Your task to perform on an android device: Go to sound settings Image 0: 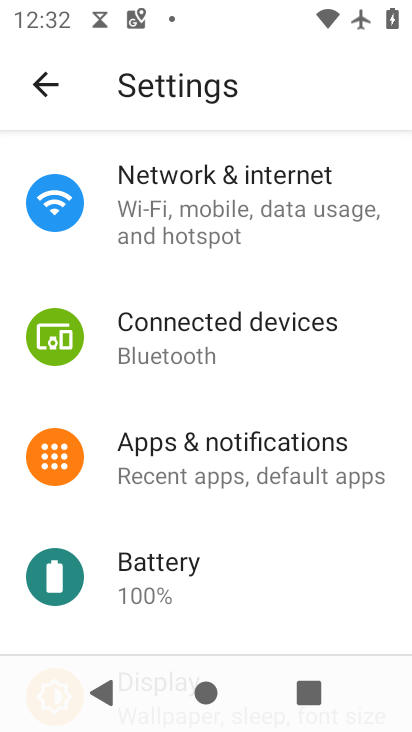
Step 0: drag from (281, 439) to (222, 54)
Your task to perform on an android device: Go to sound settings Image 1: 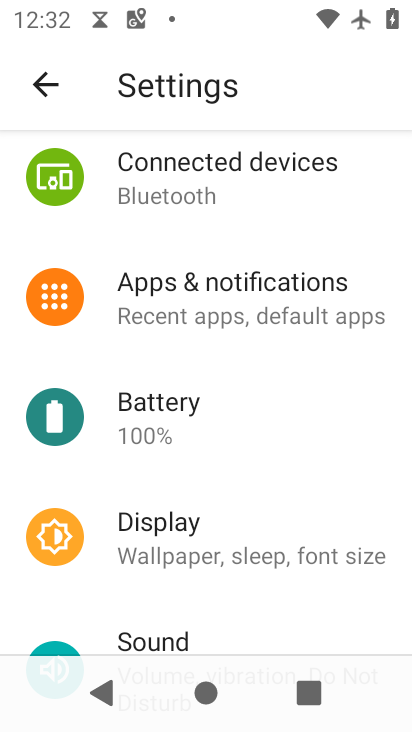
Step 1: click (214, 627)
Your task to perform on an android device: Go to sound settings Image 2: 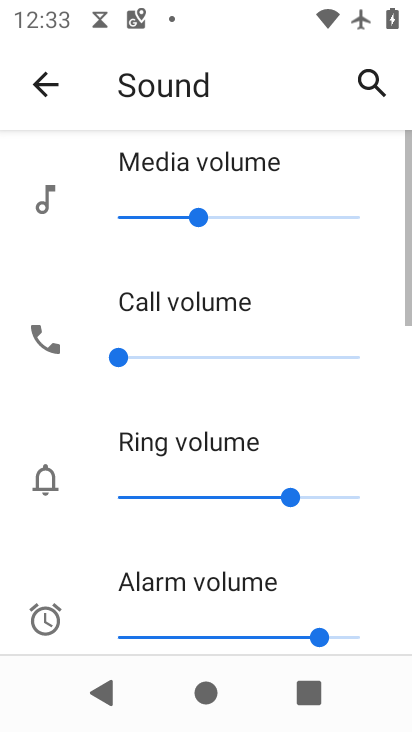
Step 2: task complete